Your task to perform on an android device: open chrome and create a bookmark for the current page Image 0: 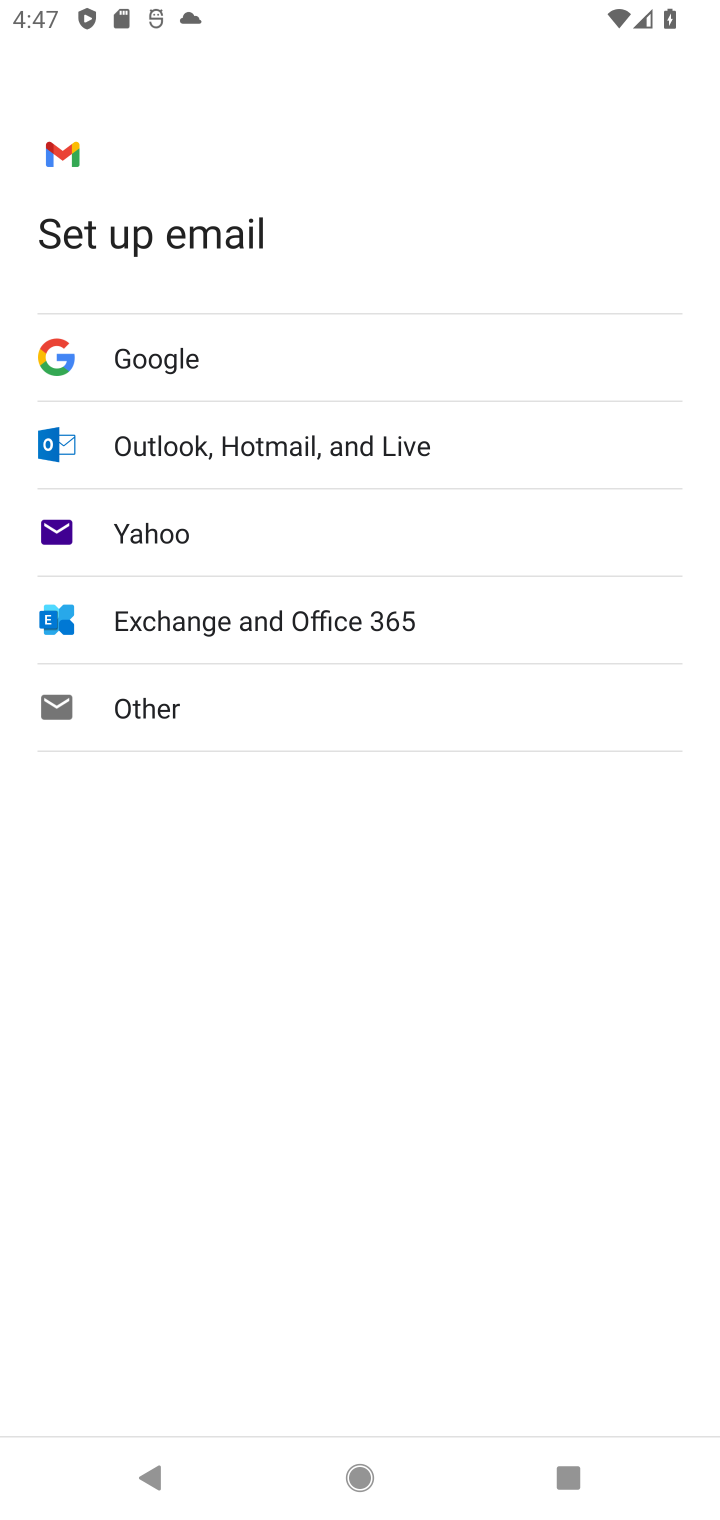
Step 0: press back button
Your task to perform on an android device: open chrome and create a bookmark for the current page Image 1: 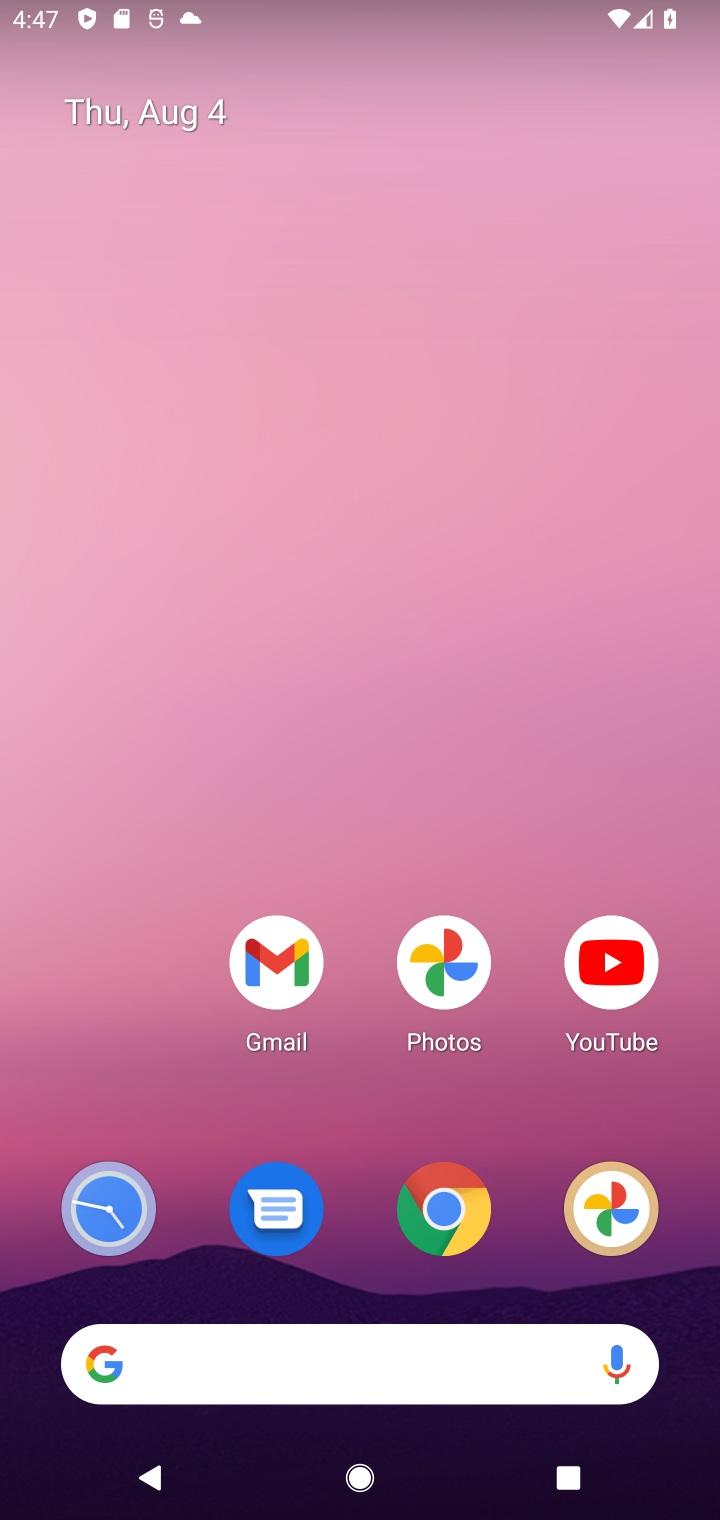
Step 1: click (453, 1207)
Your task to perform on an android device: open chrome and create a bookmark for the current page Image 2: 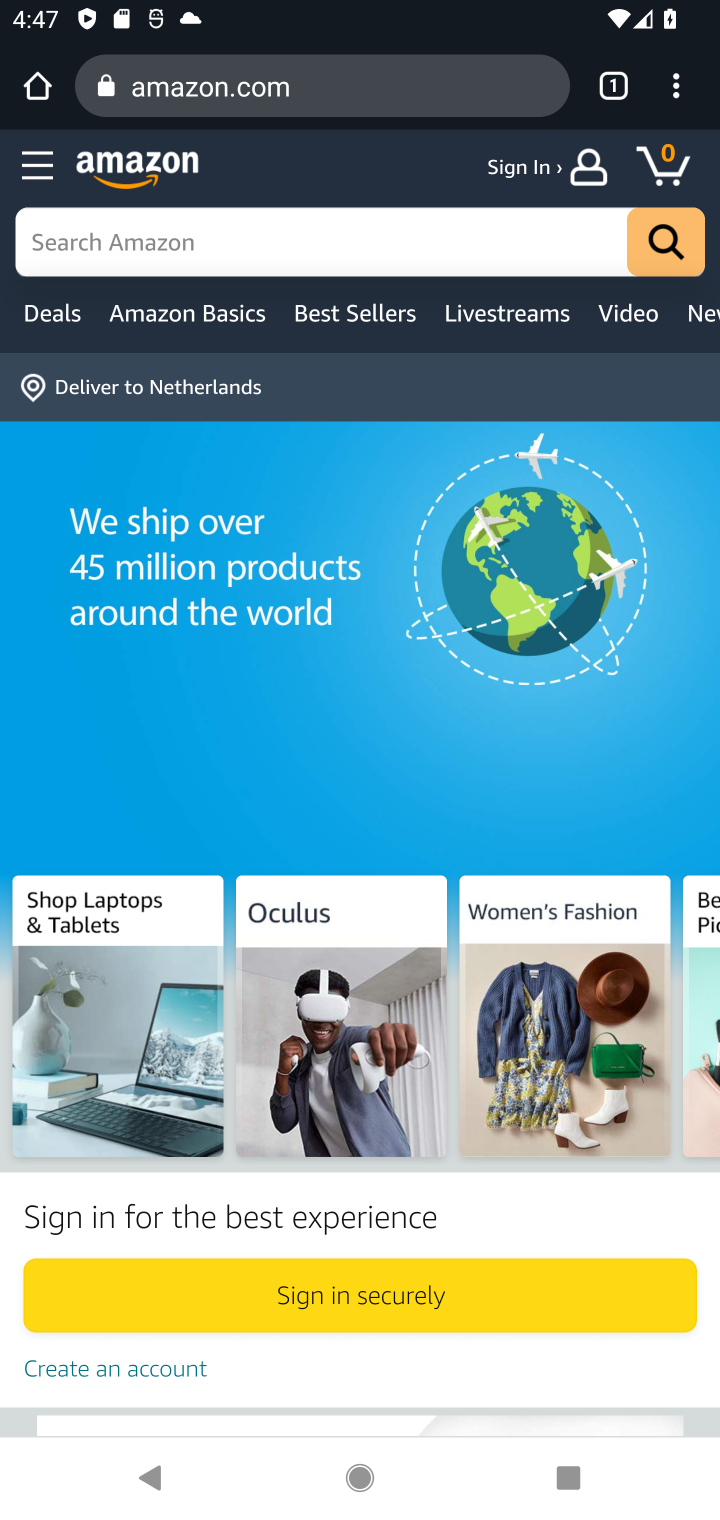
Step 2: click (673, 89)
Your task to perform on an android device: open chrome and create a bookmark for the current page Image 3: 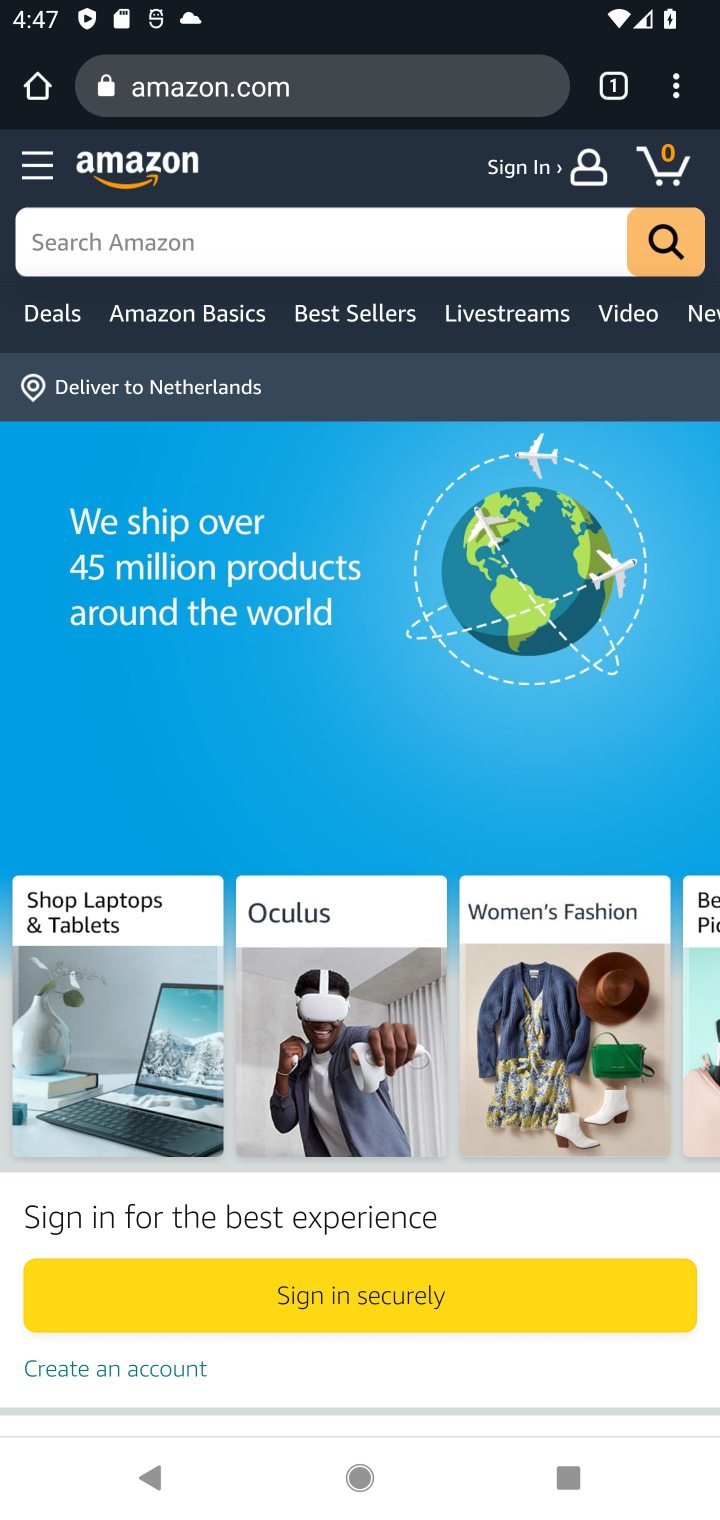
Step 3: click (668, 95)
Your task to perform on an android device: open chrome and create a bookmark for the current page Image 4: 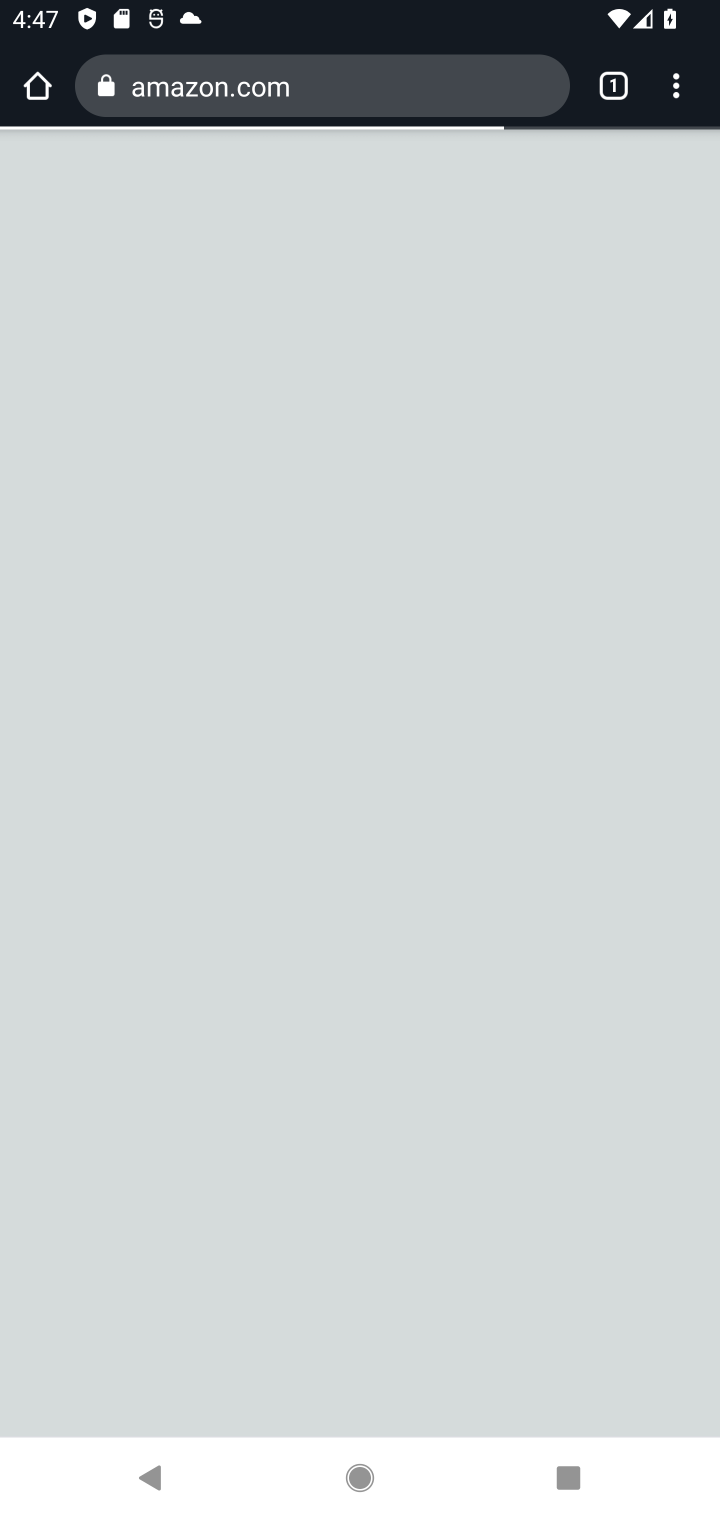
Step 4: press back button
Your task to perform on an android device: open chrome and create a bookmark for the current page Image 5: 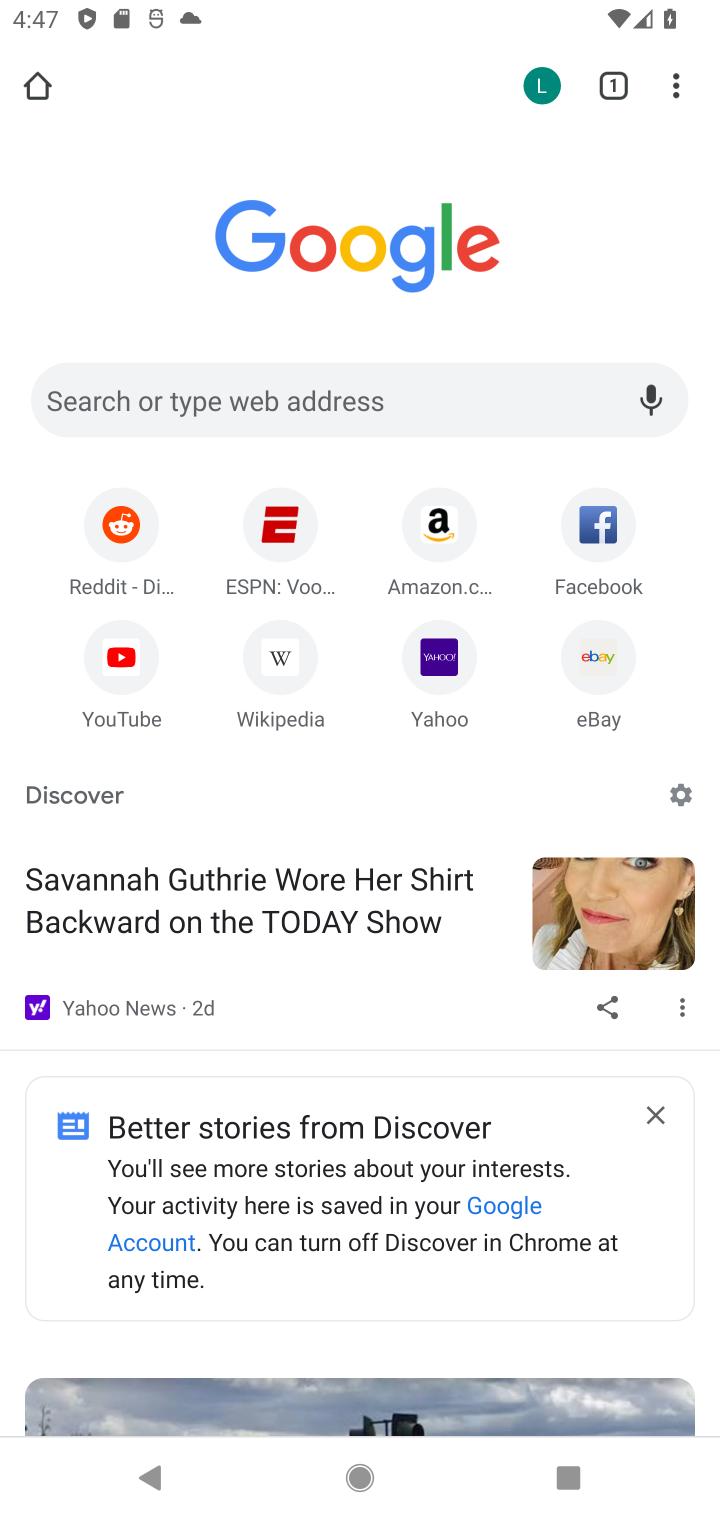
Step 5: click (679, 85)
Your task to perform on an android device: open chrome and create a bookmark for the current page Image 6: 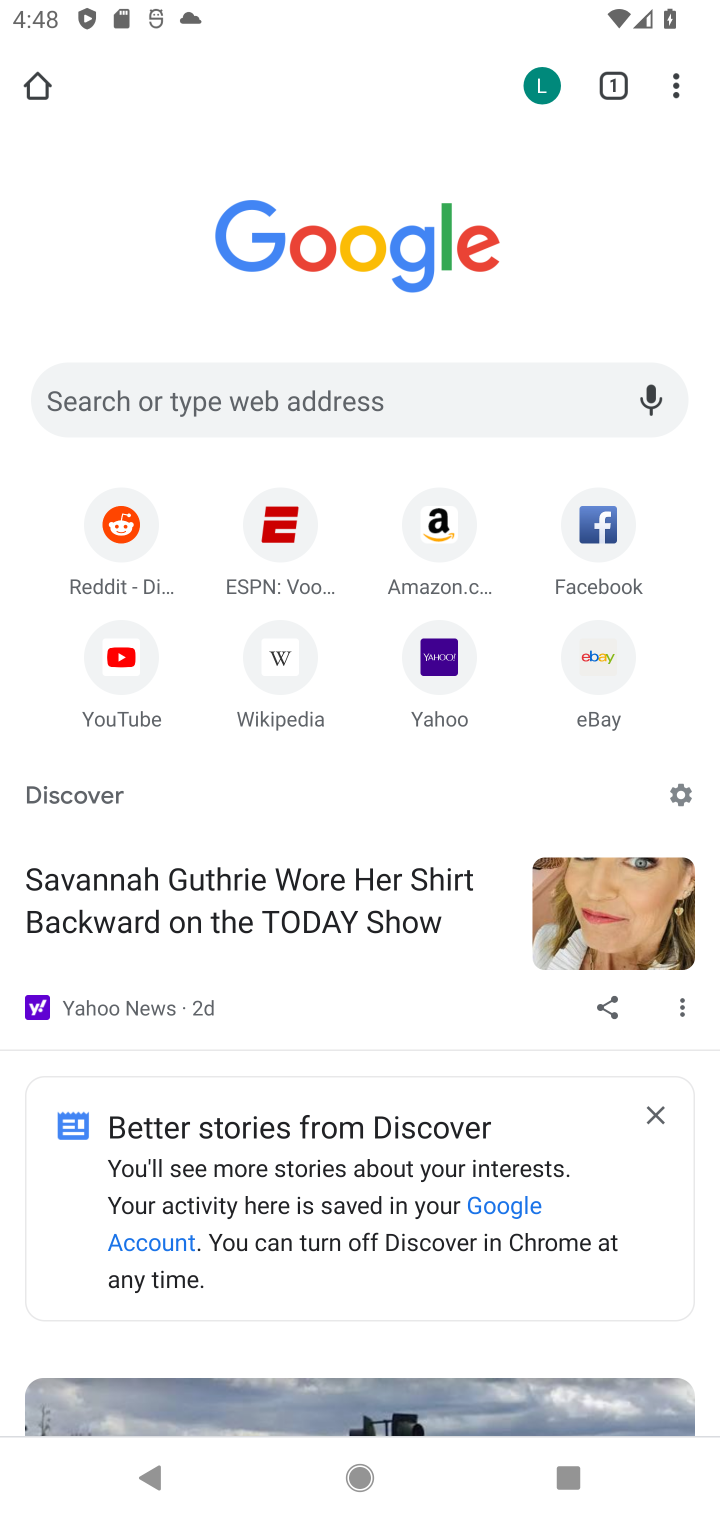
Step 6: click (677, 90)
Your task to perform on an android device: open chrome and create a bookmark for the current page Image 7: 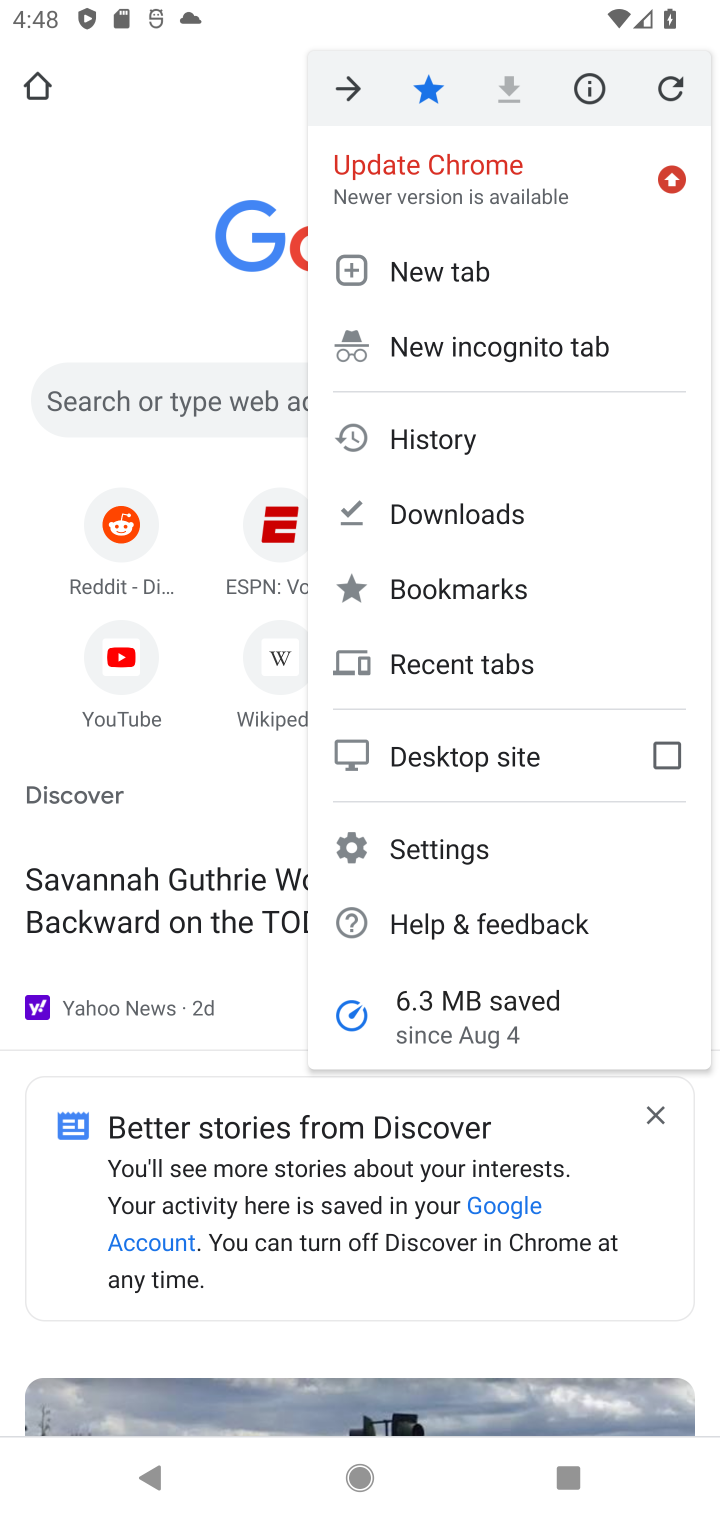
Step 7: task complete